Your task to perform on an android device: Open Wikipedia Image 0: 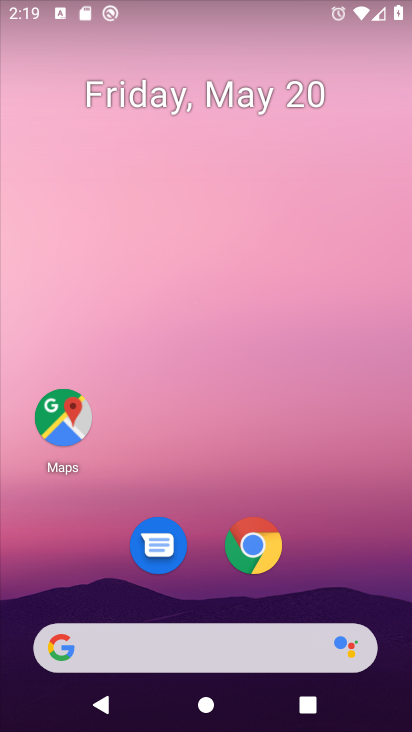
Step 0: drag from (201, 673) to (183, 33)
Your task to perform on an android device: Open Wikipedia Image 1: 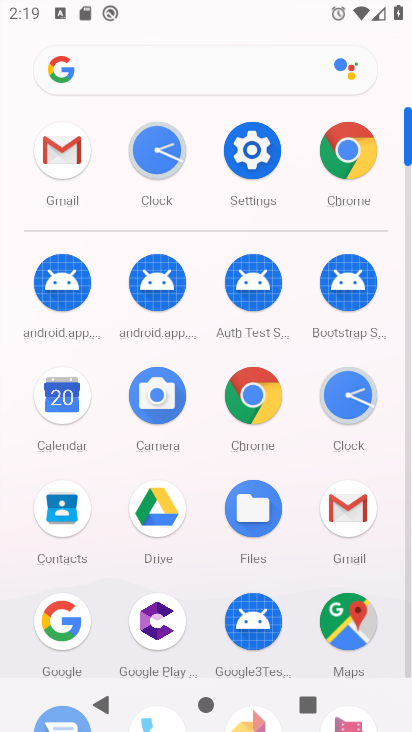
Step 1: click (257, 411)
Your task to perform on an android device: Open Wikipedia Image 2: 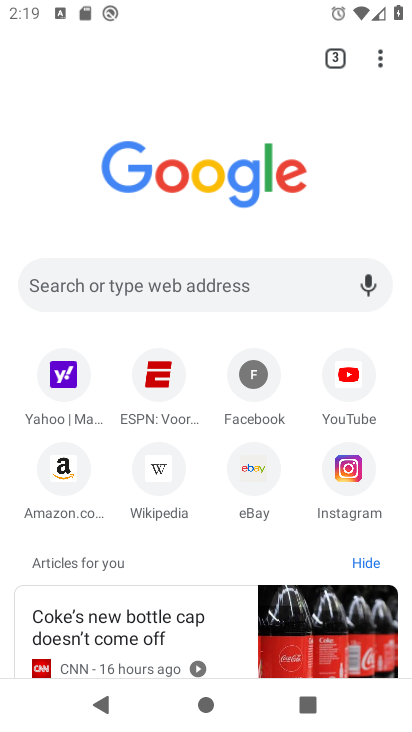
Step 2: drag from (385, 57) to (260, 115)
Your task to perform on an android device: Open Wikipedia Image 3: 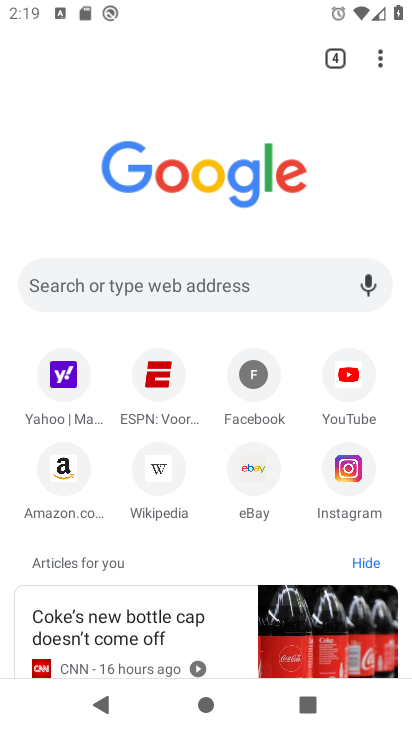
Step 3: click (155, 491)
Your task to perform on an android device: Open Wikipedia Image 4: 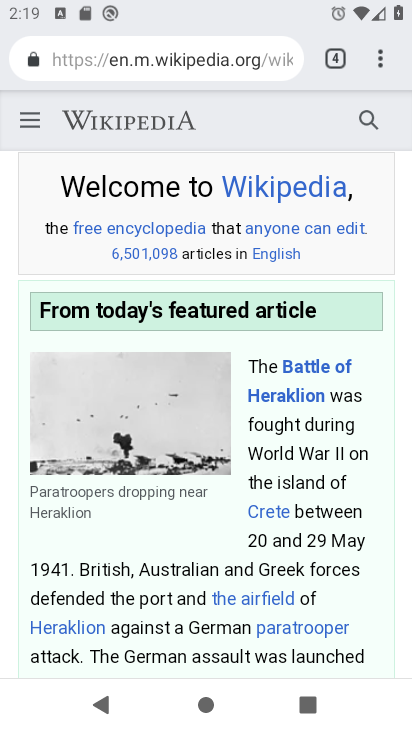
Step 4: task complete